Your task to perform on an android device: visit the assistant section in the google photos Image 0: 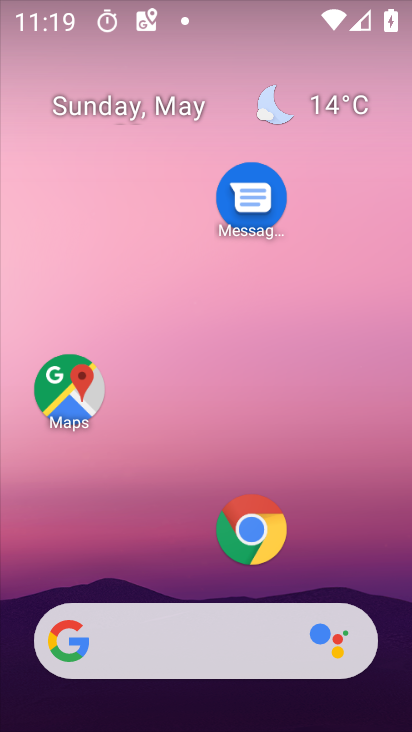
Step 0: drag from (171, 545) to (199, 130)
Your task to perform on an android device: visit the assistant section in the google photos Image 1: 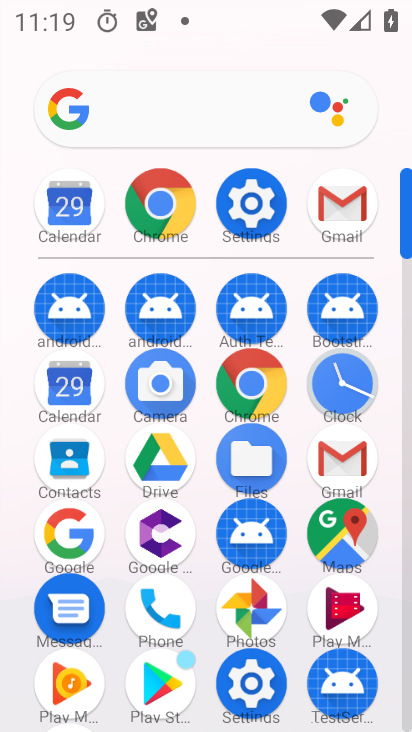
Step 1: click (251, 615)
Your task to perform on an android device: visit the assistant section in the google photos Image 2: 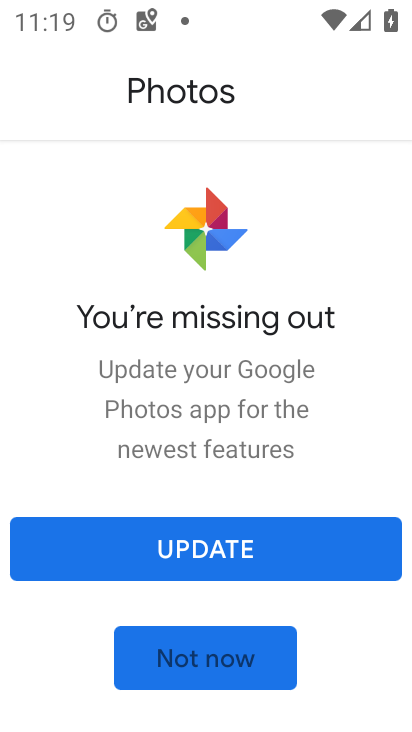
Step 2: click (239, 667)
Your task to perform on an android device: visit the assistant section in the google photos Image 3: 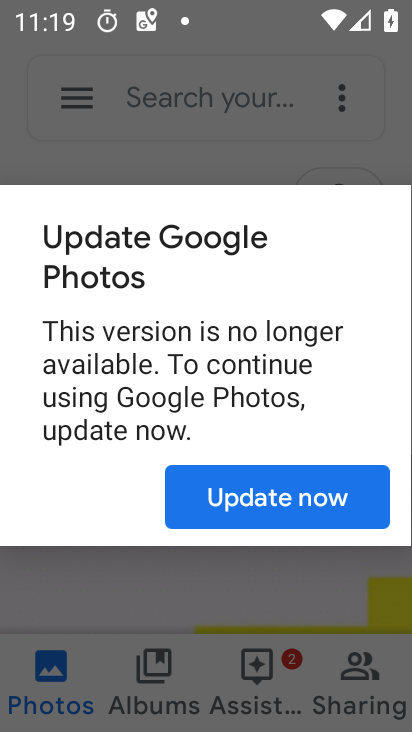
Step 3: click (305, 496)
Your task to perform on an android device: visit the assistant section in the google photos Image 4: 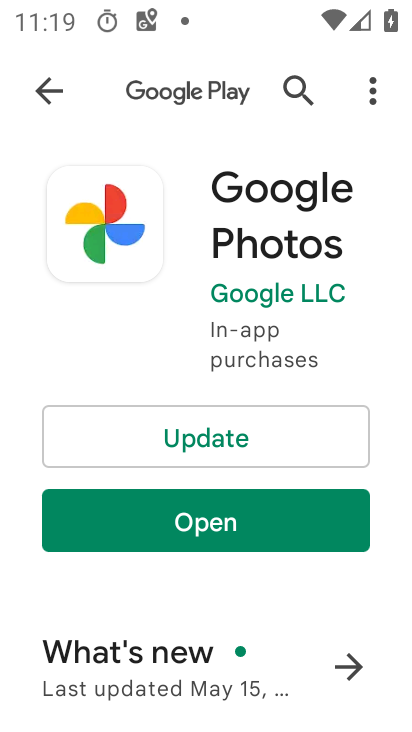
Step 4: click (257, 524)
Your task to perform on an android device: visit the assistant section in the google photos Image 5: 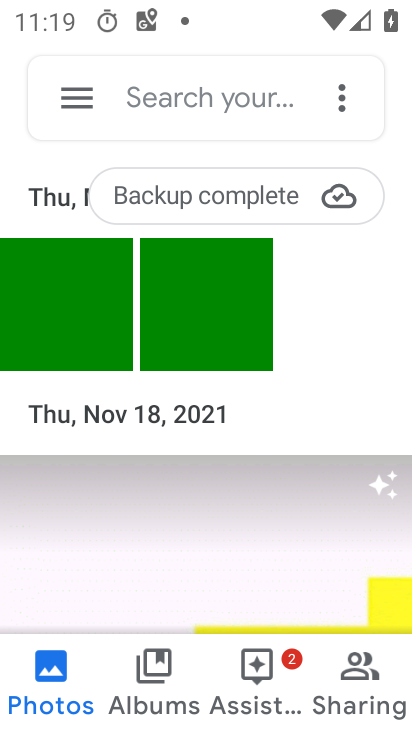
Step 5: click (251, 667)
Your task to perform on an android device: visit the assistant section in the google photos Image 6: 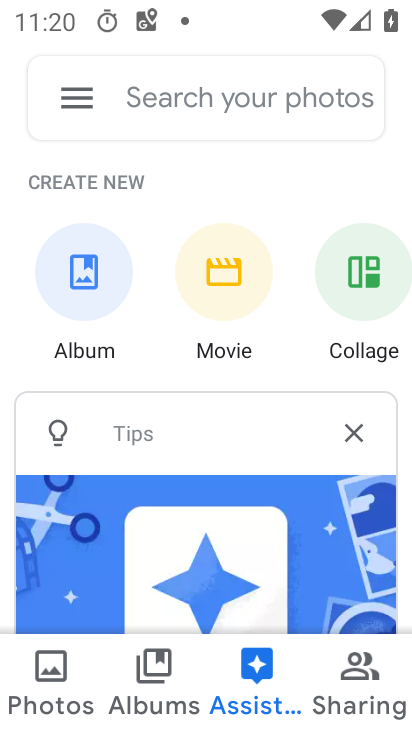
Step 6: task complete